Your task to perform on an android device: Go to location settings Image 0: 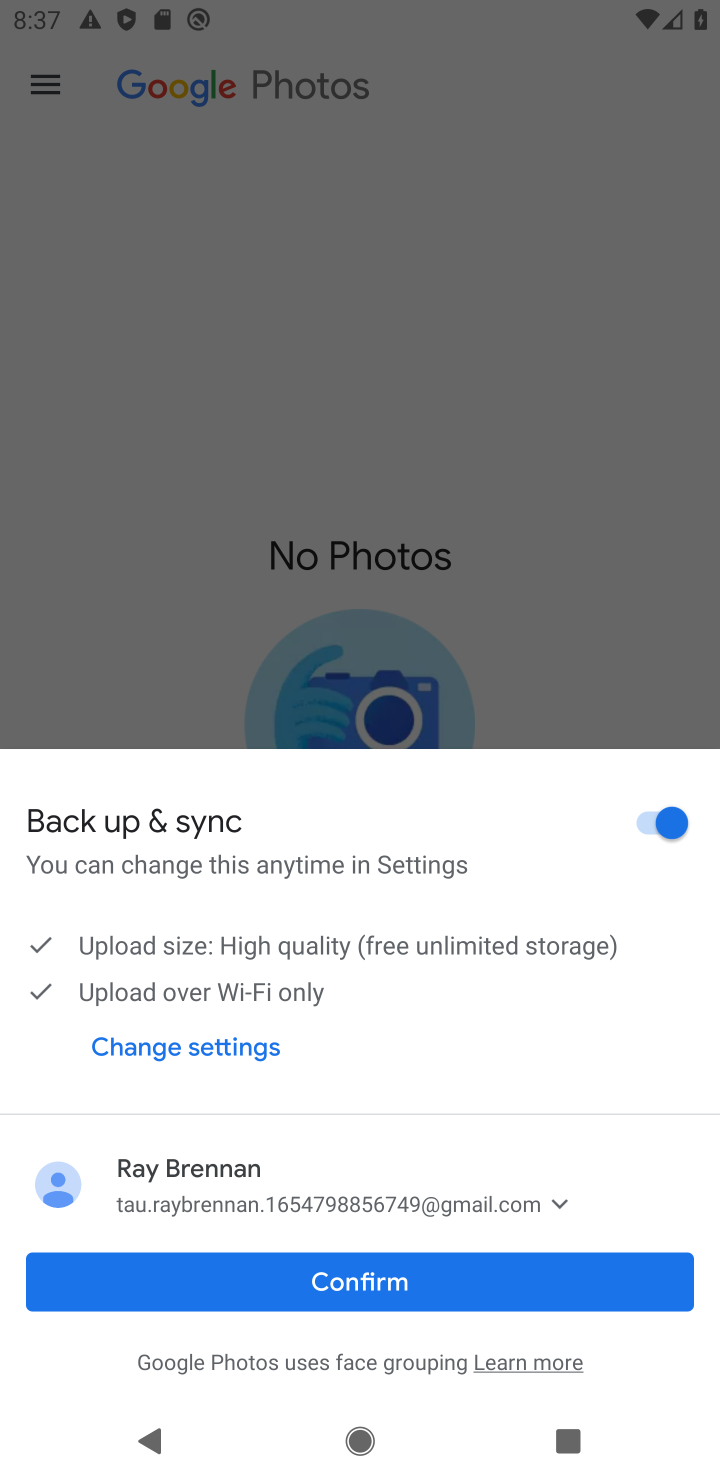
Step 0: press home button
Your task to perform on an android device: Go to location settings Image 1: 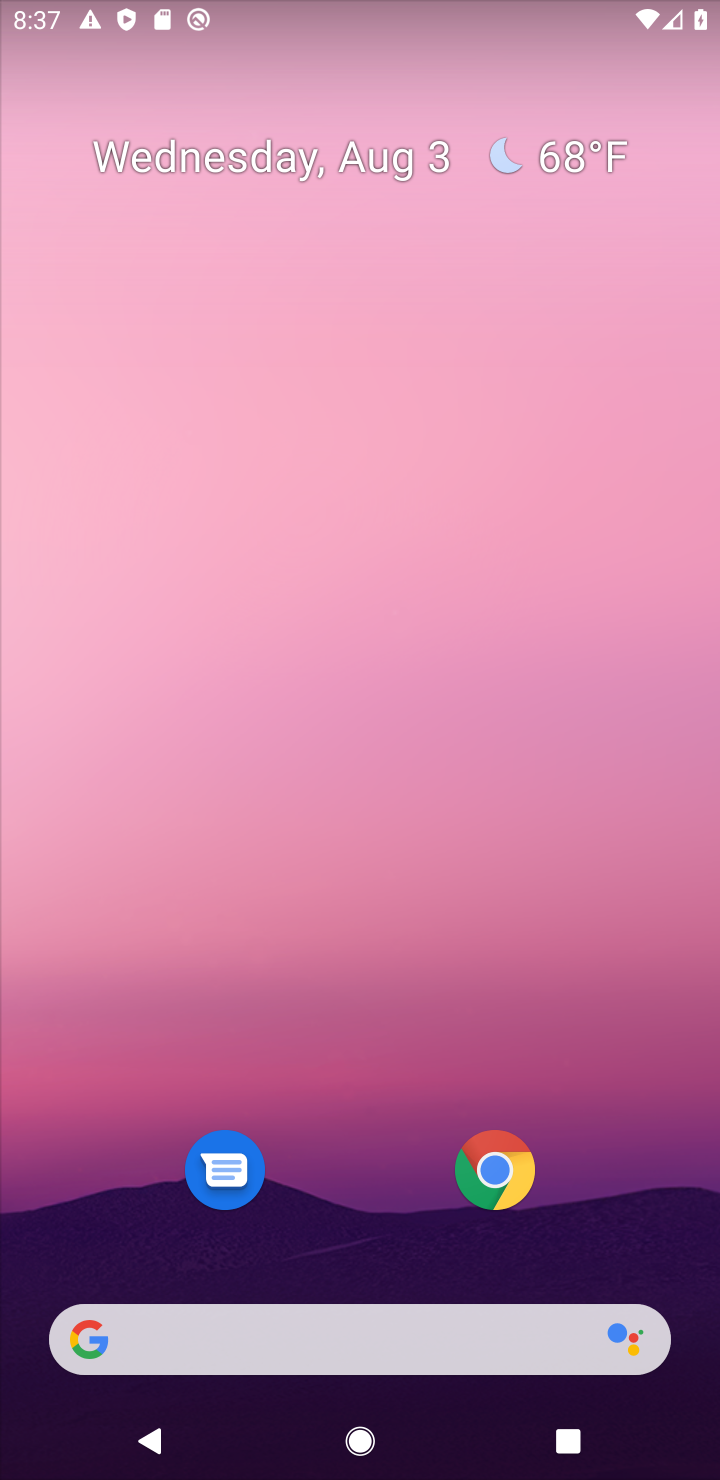
Step 1: drag from (650, 1256) to (630, 367)
Your task to perform on an android device: Go to location settings Image 2: 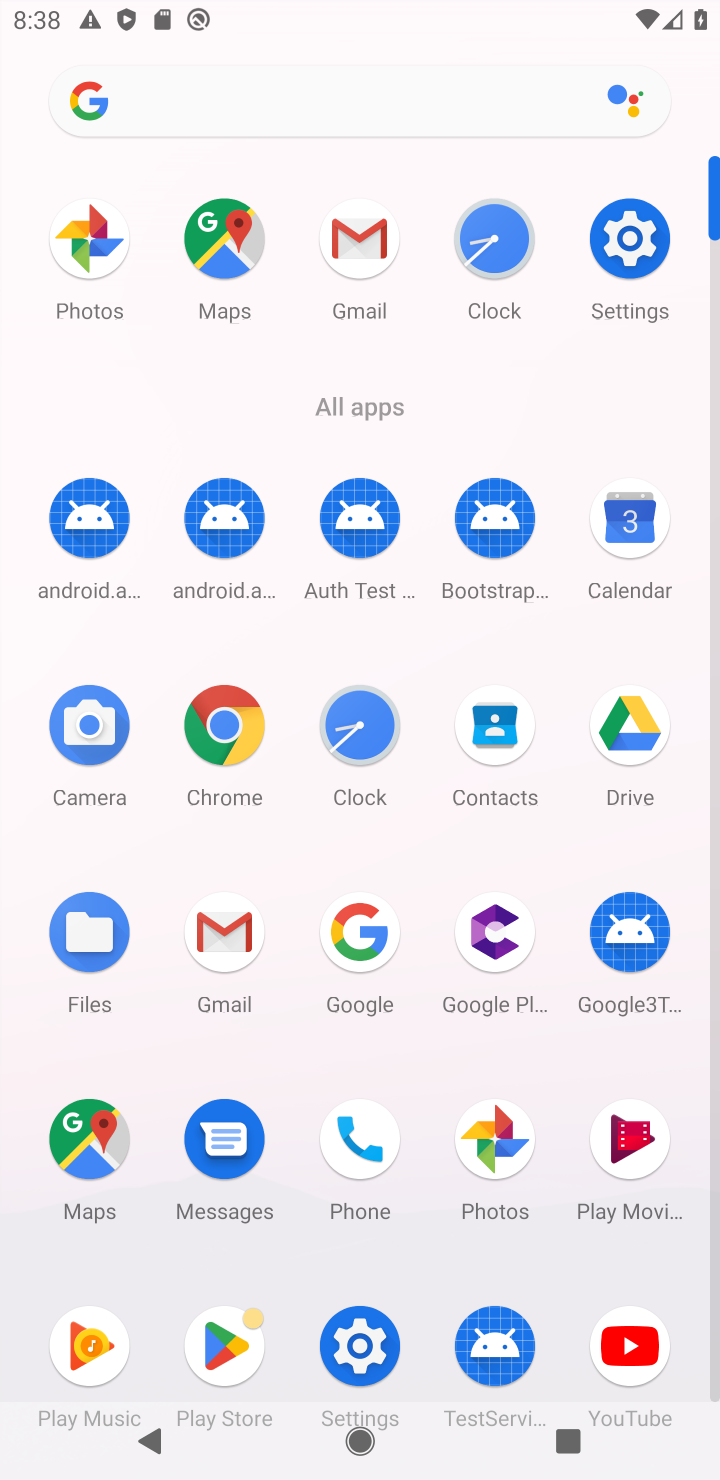
Step 2: click (357, 1350)
Your task to perform on an android device: Go to location settings Image 3: 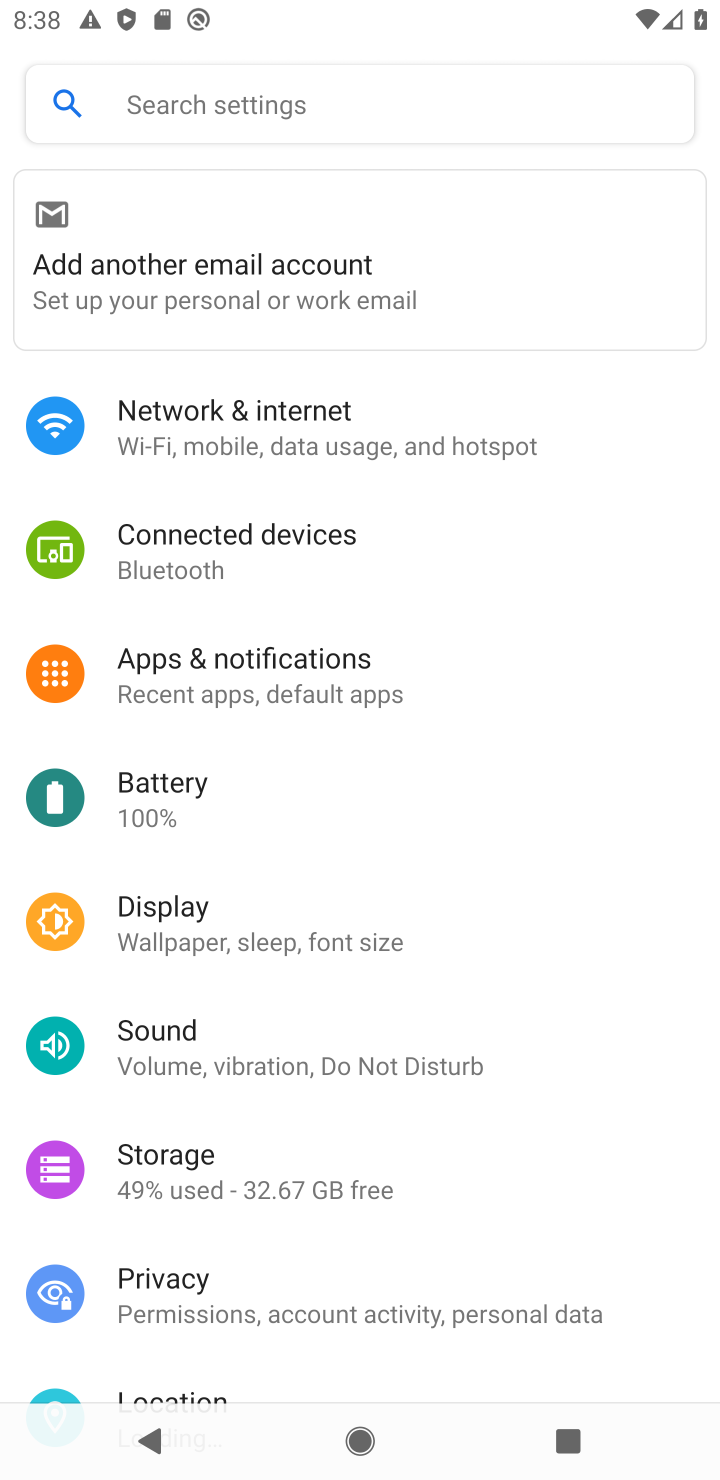
Step 3: drag from (555, 1218) to (548, 375)
Your task to perform on an android device: Go to location settings Image 4: 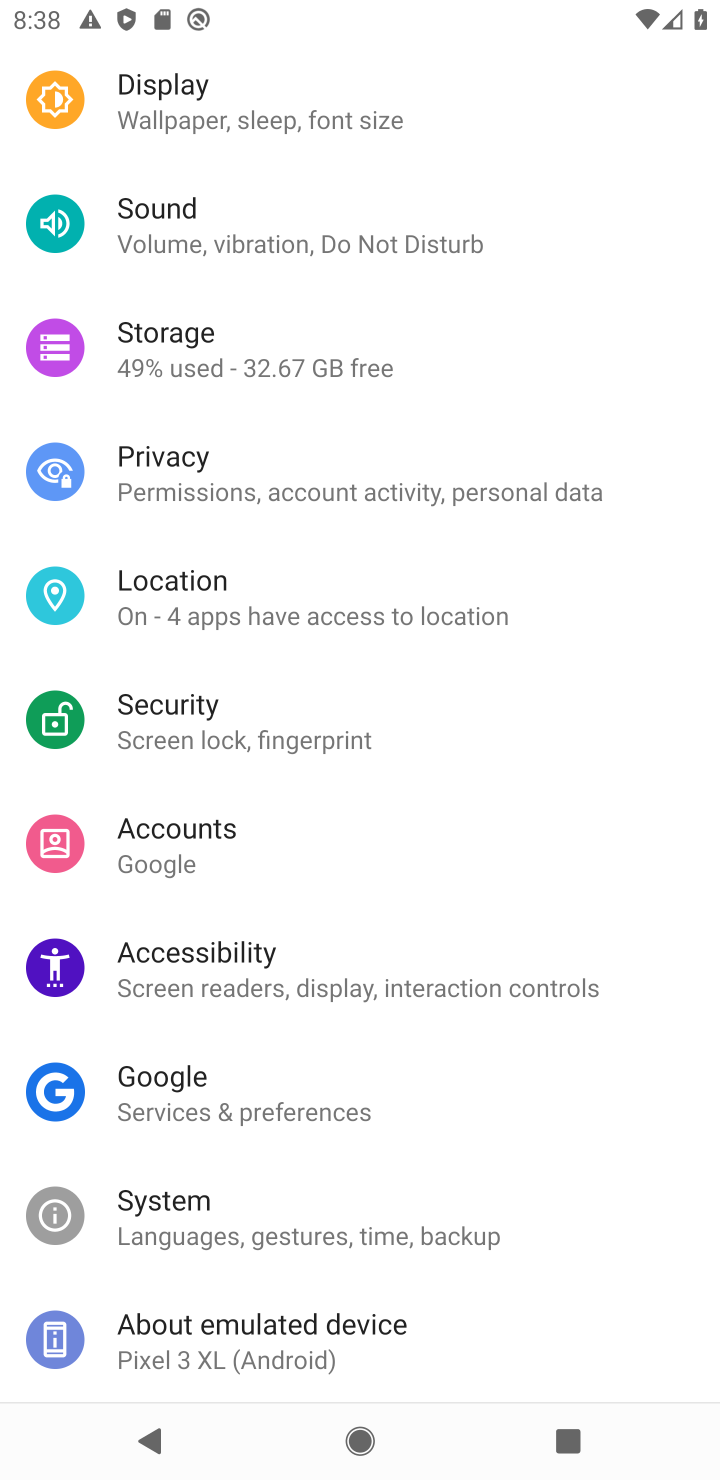
Step 4: click (176, 599)
Your task to perform on an android device: Go to location settings Image 5: 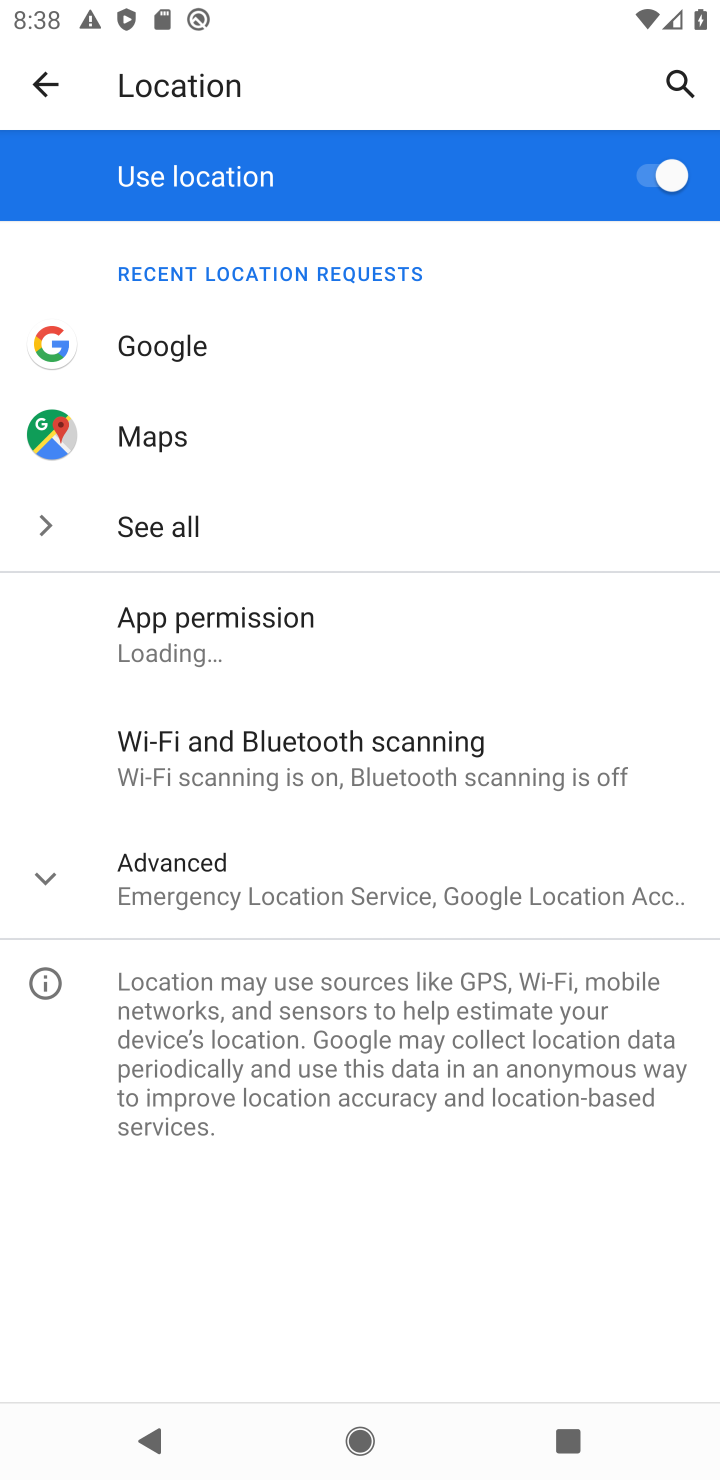
Step 5: click (31, 894)
Your task to perform on an android device: Go to location settings Image 6: 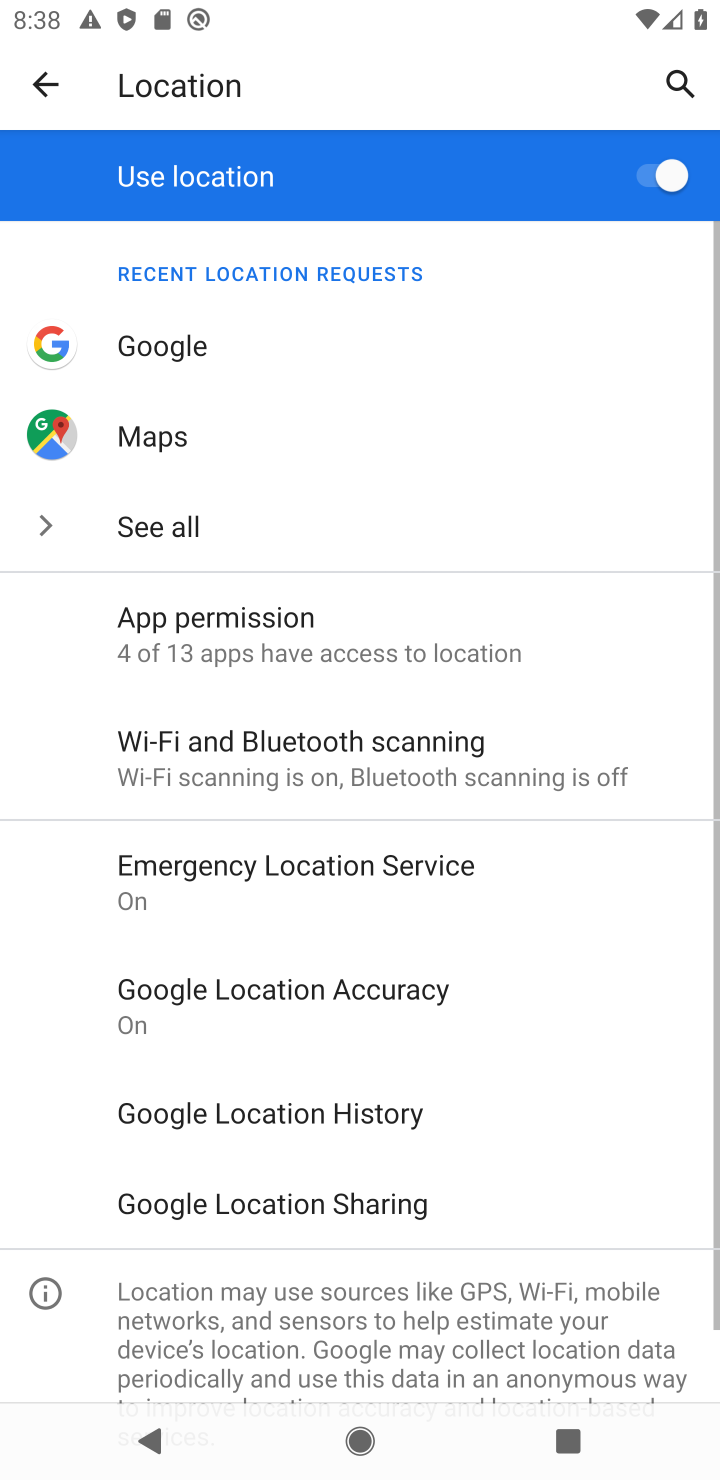
Step 6: task complete